Your task to perform on an android device: Open the web browser Image 0: 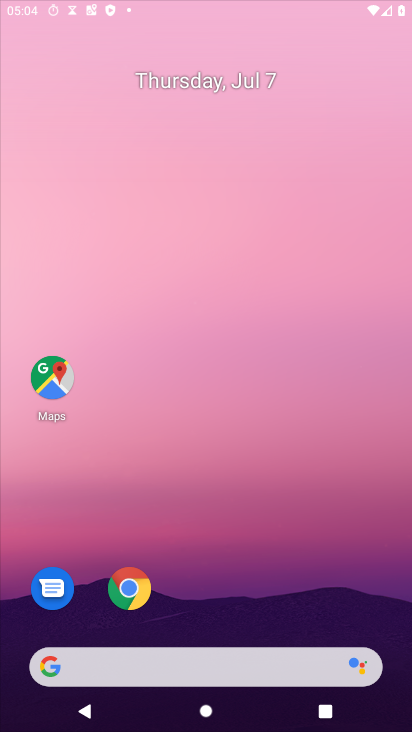
Step 0: press home button
Your task to perform on an android device: Open the web browser Image 1: 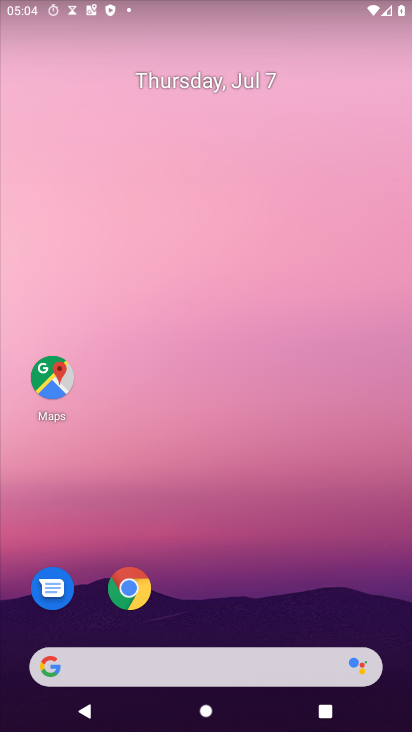
Step 1: click (48, 658)
Your task to perform on an android device: Open the web browser Image 2: 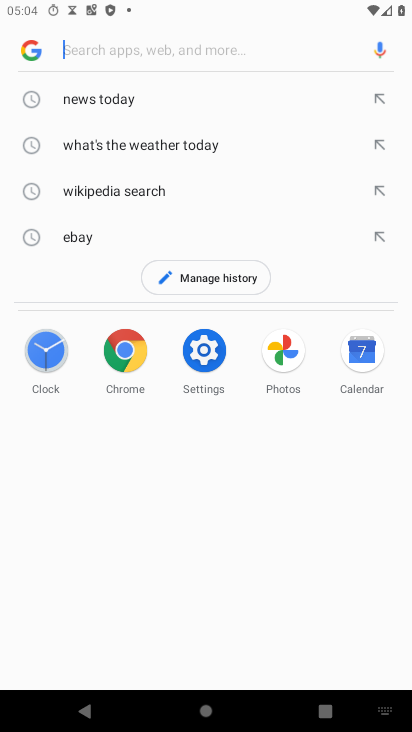
Step 2: task complete